Your task to perform on an android device: Open Android settings Image 0: 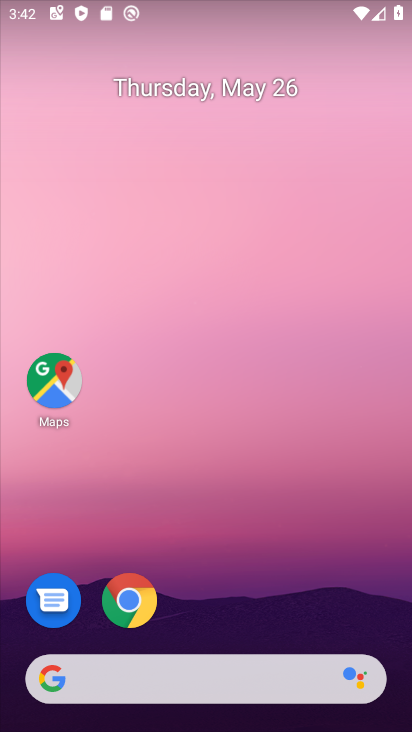
Step 0: drag from (218, 629) to (278, 173)
Your task to perform on an android device: Open Android settings Image 1: 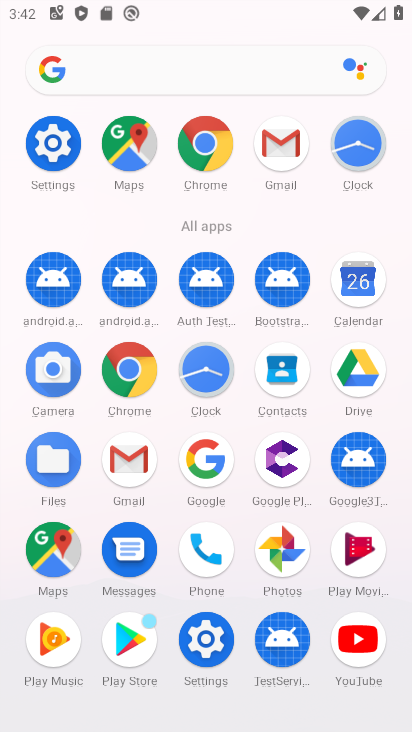
Step 1: click (57, 152)
Your task to perform on an android device: Open Android settings Image 2: 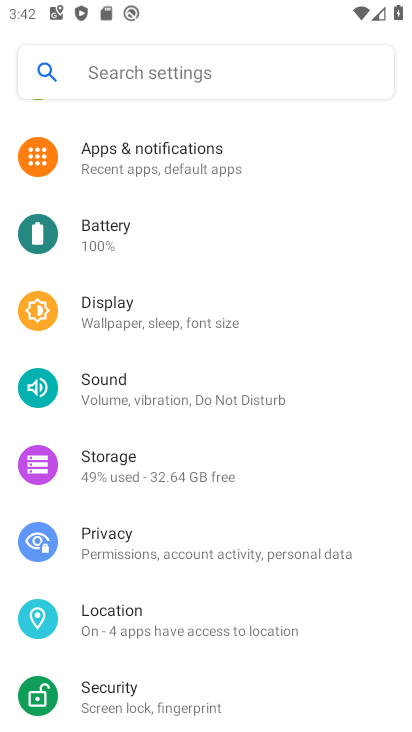
Step 2: drag from (141, 516) to (187, 303)
Your task to perform on an android device: Open Android settings Image 3: 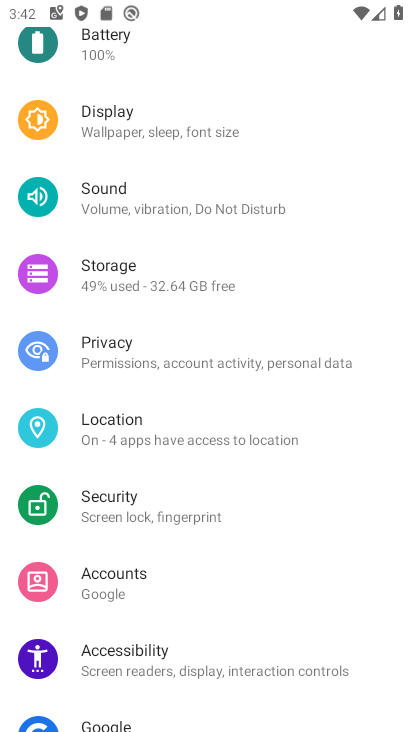
Step 3: drag from (169, 564) to (224, 167)
Your task to perform on an android device: Open Android settings Image 4: 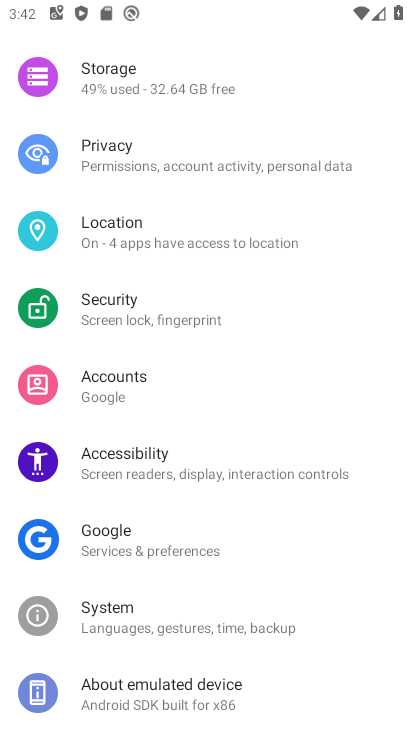
Step 4: click (143, 691)
Your task to perform on an android device: Open Android settings Image 5: 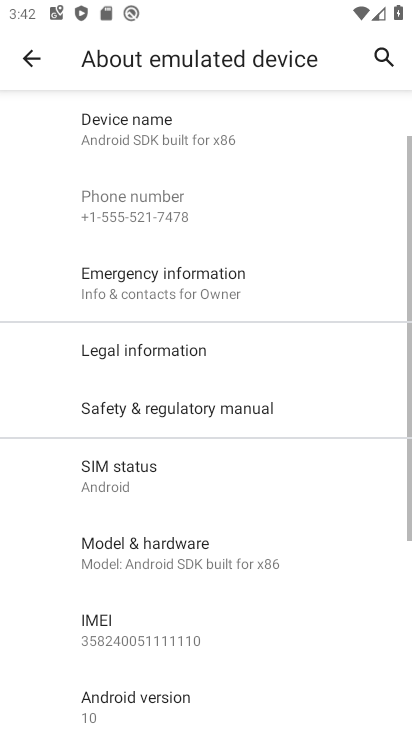
Step 5: drag from (122, 705) to (132, 482)
Your task to perform on an android device: Open Android settings Image 6: 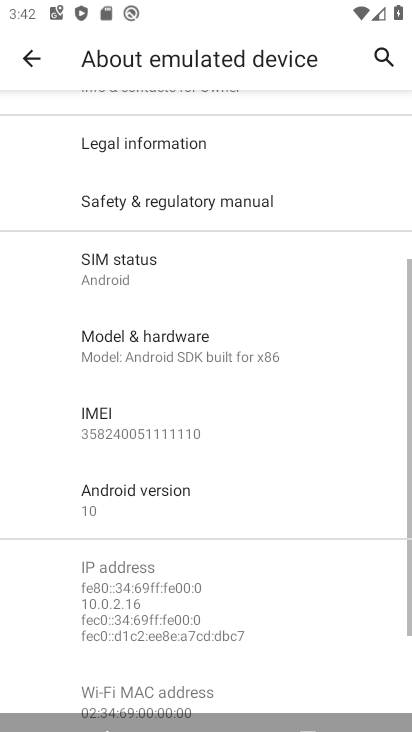
Step 6: click (123, 495)
Your task to perform on an android device: Open Android settings Image 7: 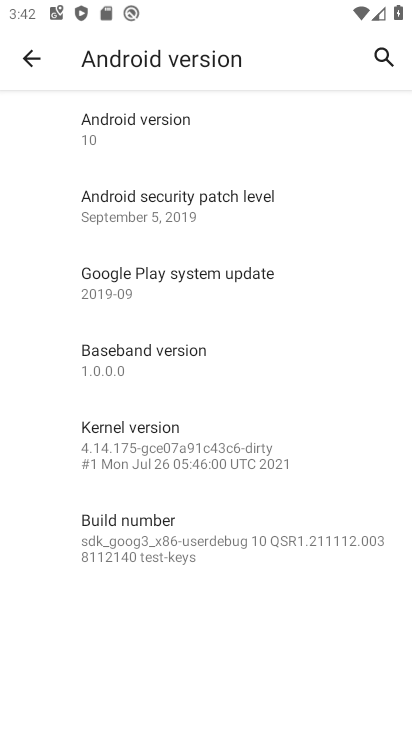
Step 7: task complete